Your task to perform on an android device: turn off location Image 0: 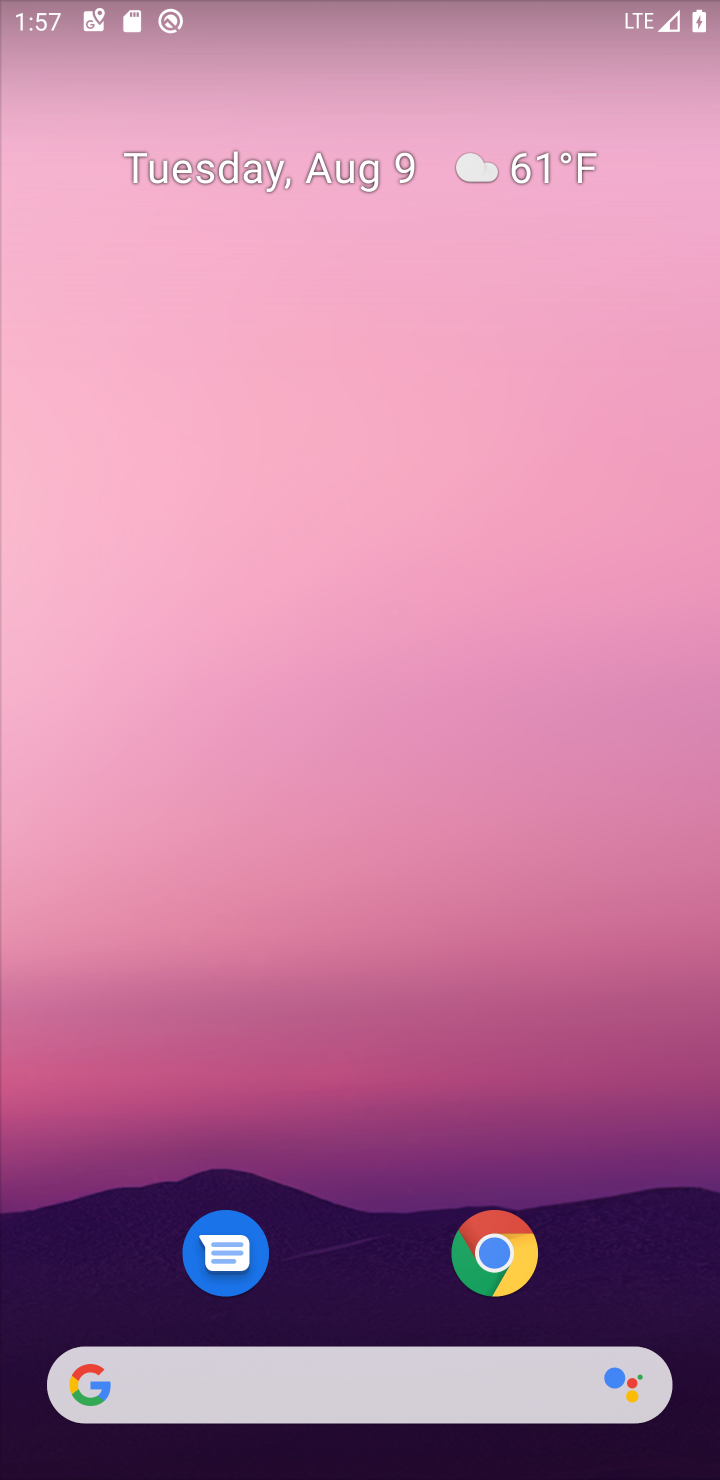
Step 0: drag from (654, 1290) to (198, 67)
Your task to perform on an android device: turn off location Image 1: 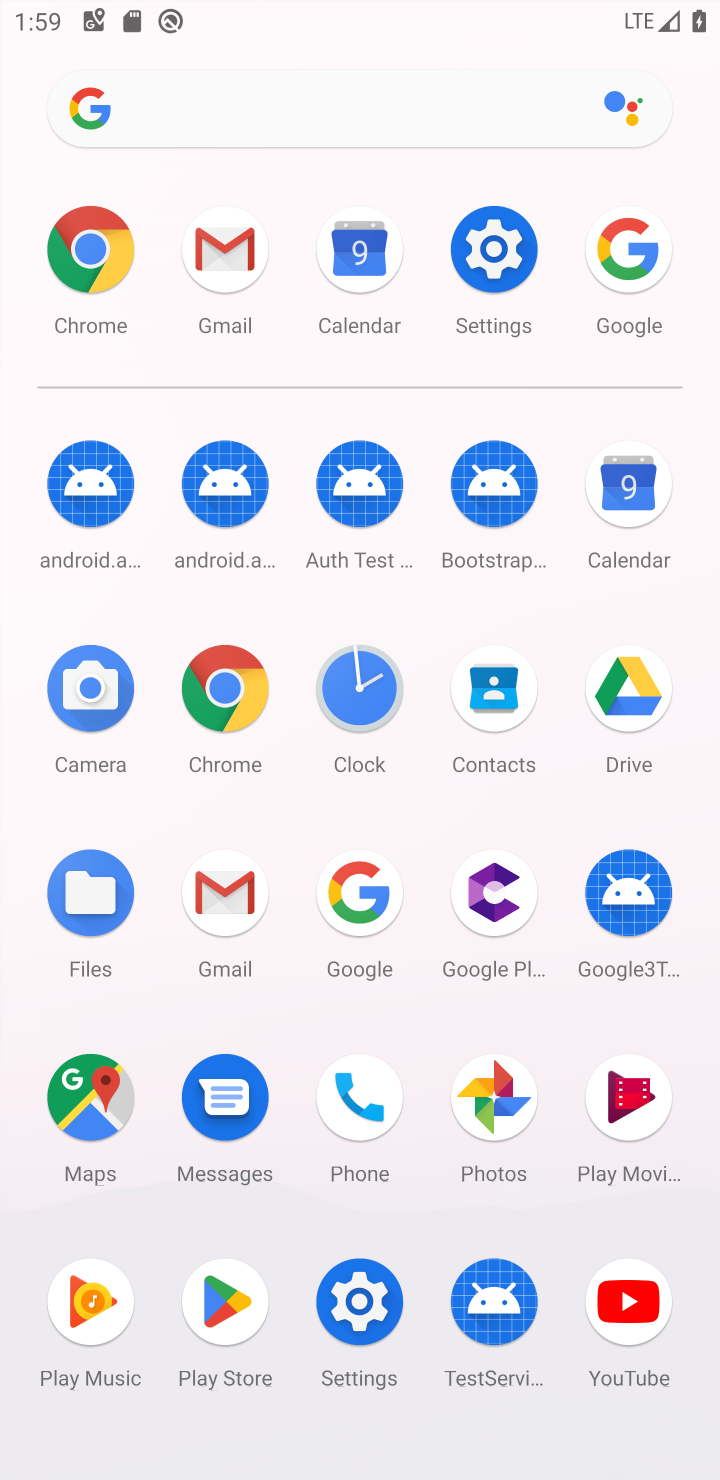
Step 1: click (347, 1322)
Your task to perform on an android device: turn off location Image 2: 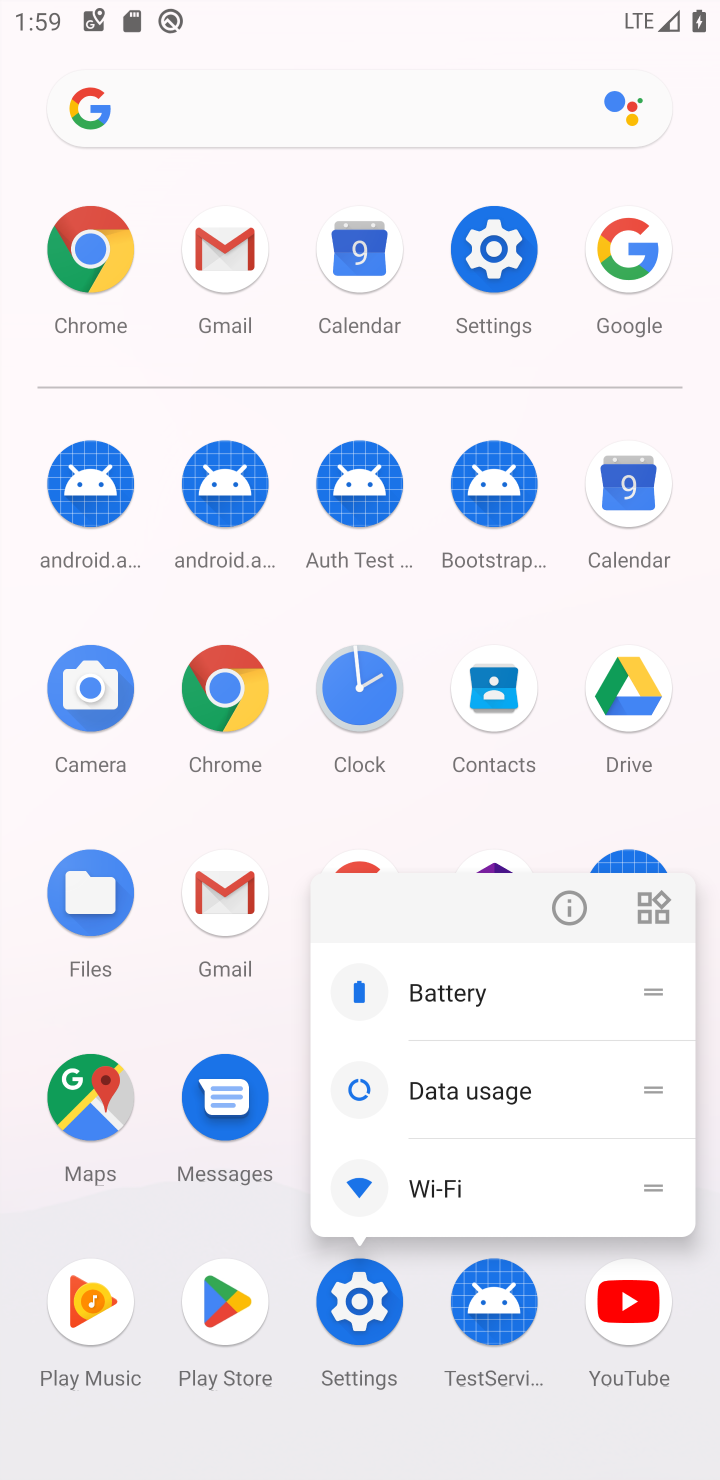
Step 2: click (347, 1322)
Your task to perform on an android device: turn off location Image 3: 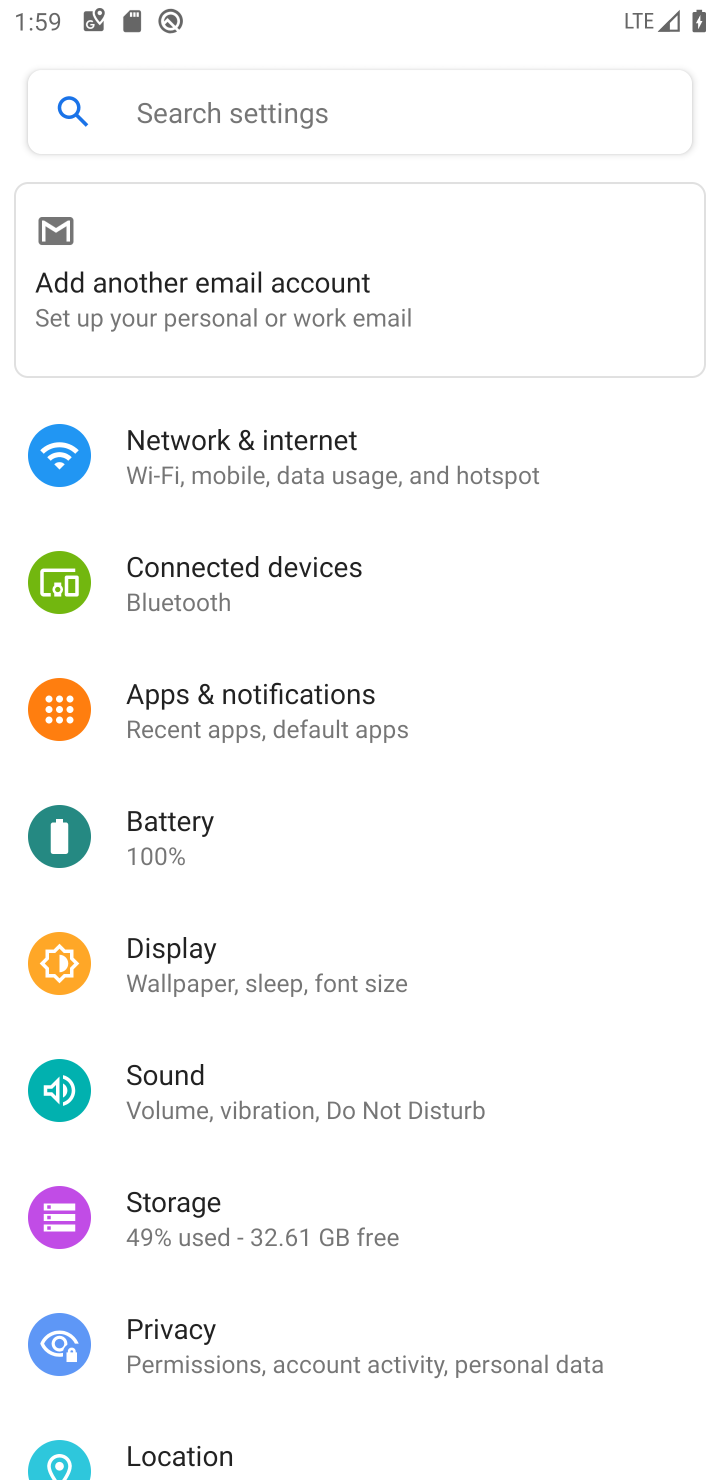
Step 3: click (186, 1449)
Your task to perform on an android device: turn off location Image 4: 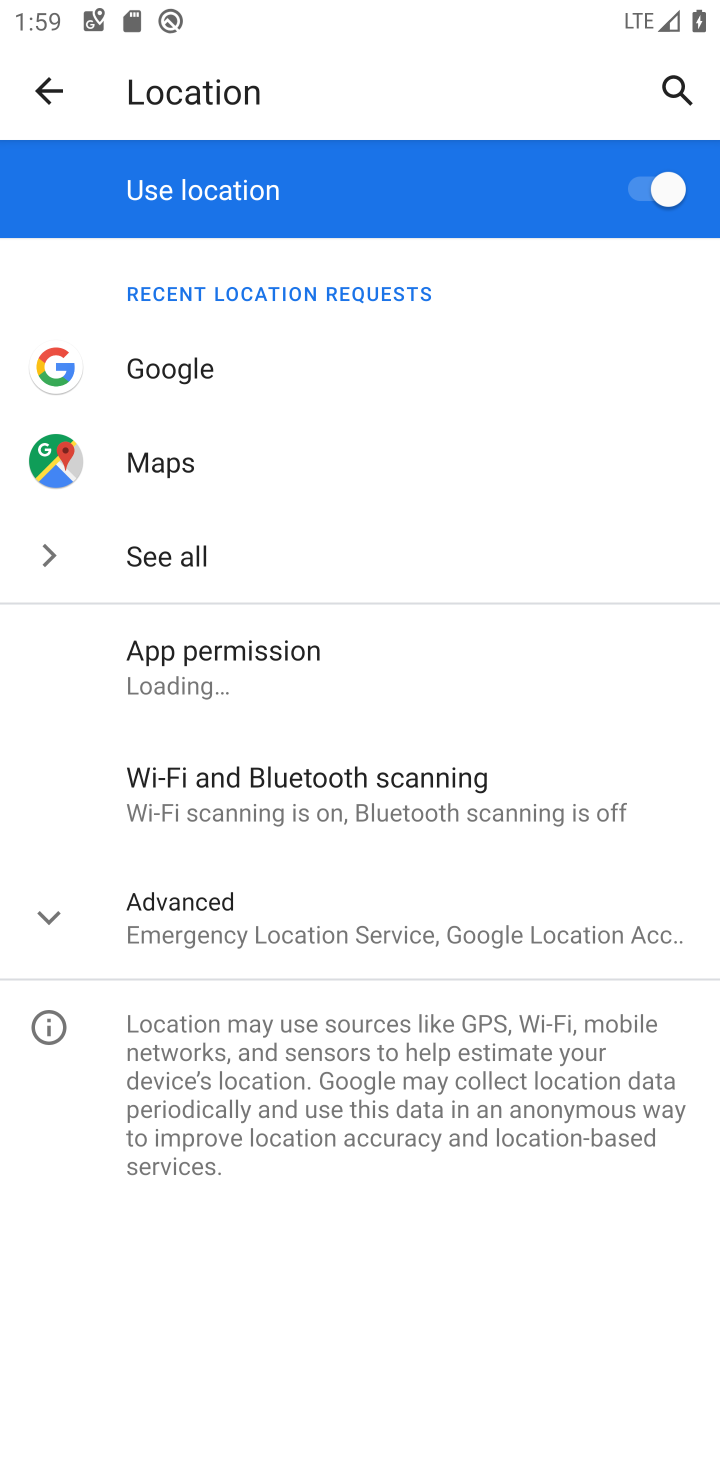
Step 4: click (627, 188)
Your task to perform on an android device: turn off location Image 5: 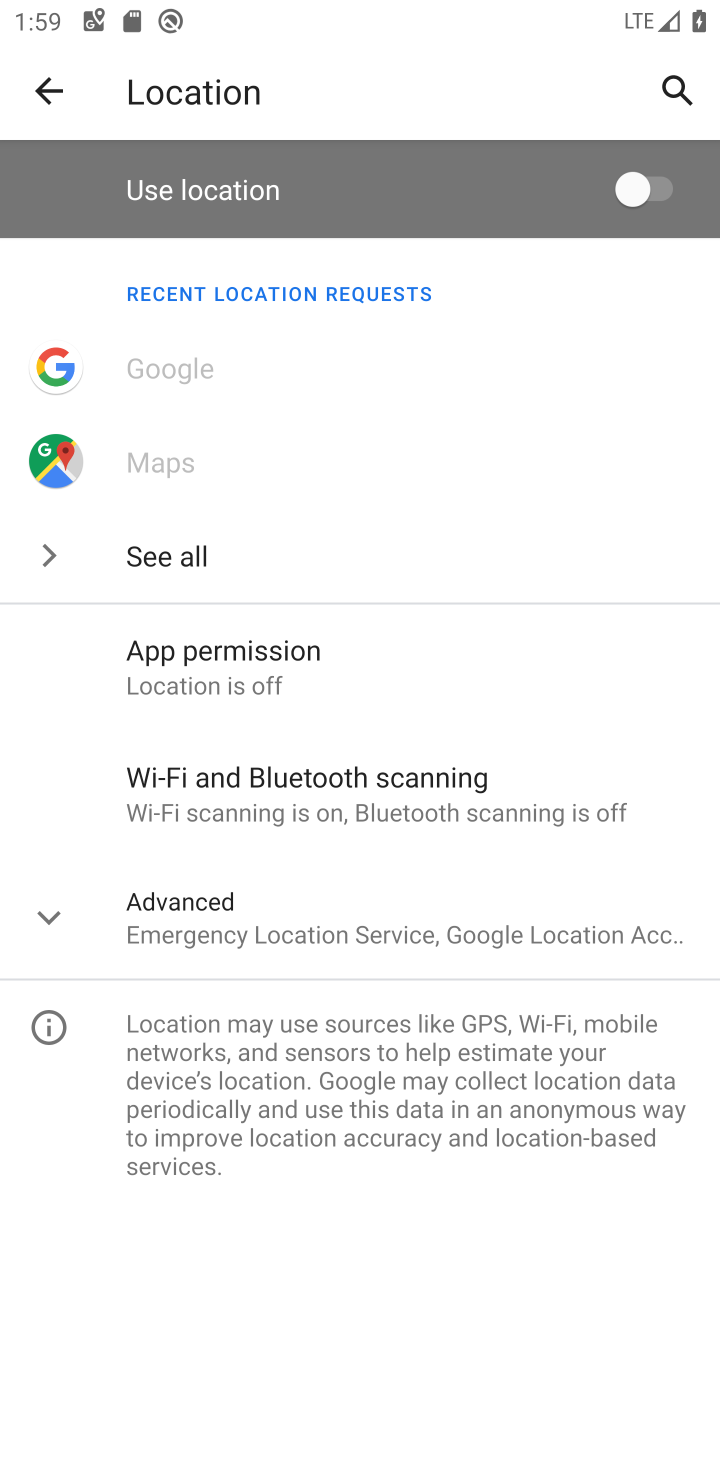
Step 5: task complete